Your task to perform on an android device: delete a single message in the gmail app Image 0: 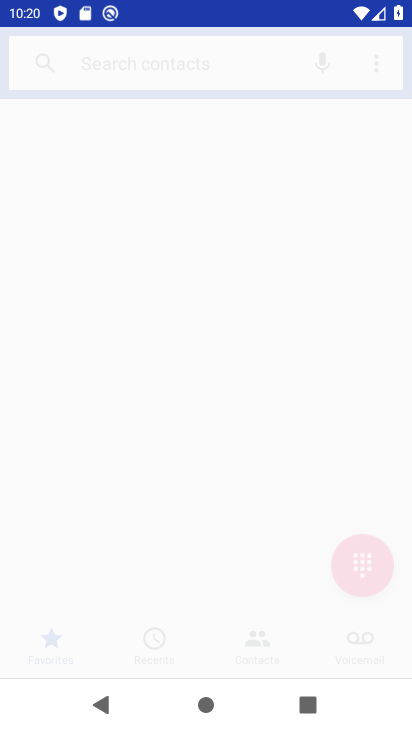
Step 0: press home button
Your task to perform on an android device: delete a single message in the gmail app Image 1: 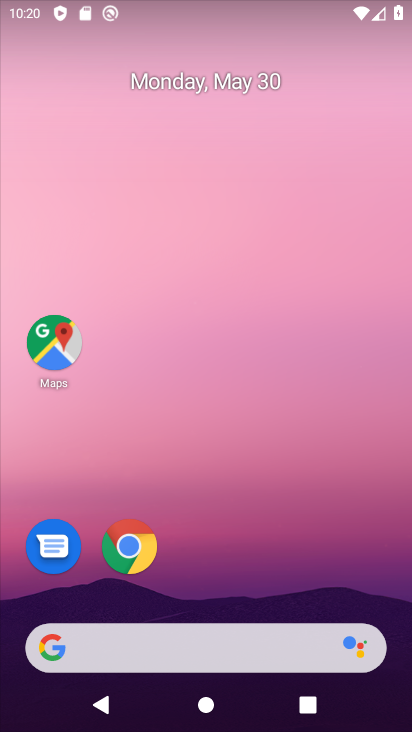
Step 1: drag from (217, 556) to (254, 111)
Your task to perform on an android device: delete a single message in the gmail app Image 2: 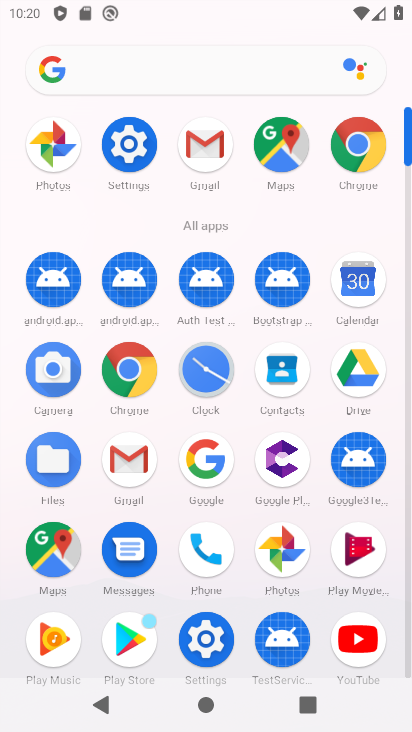
Step 2: click (204, 138)
Your task to perform on an android device: delete a single message in the gmail app Image 3: 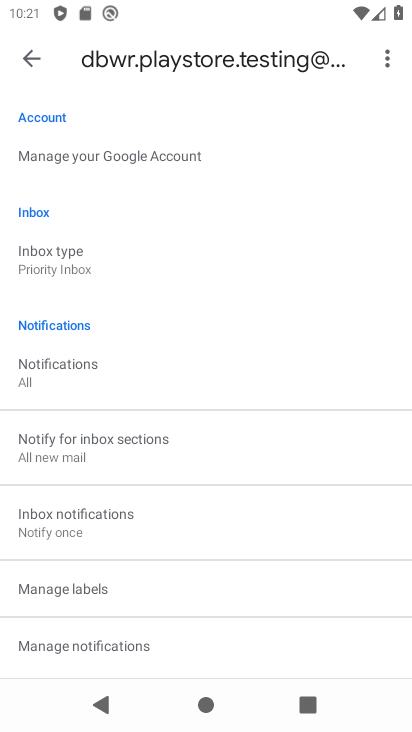
Step 3: click (29, 56)
Your task to perform on an android device: delete a single message in the gmail app Image 4: 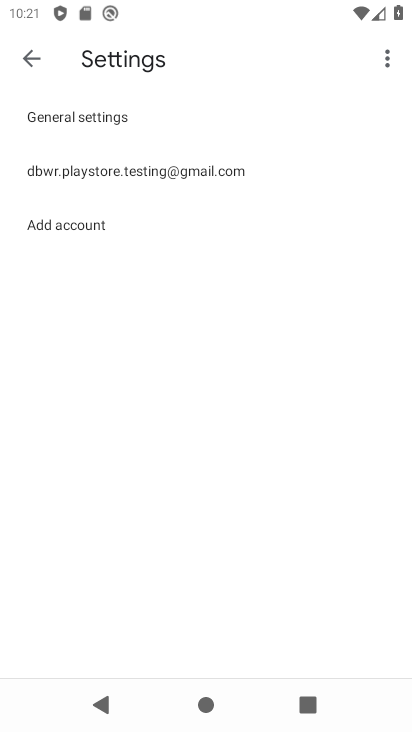
Step 4: click (37, 61)
Your task to perform on an android device: delete a single message in the gmail app Image 5: 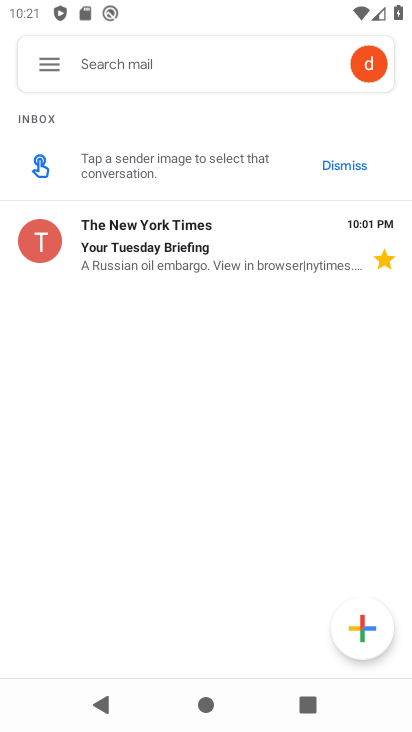
Step 5: click (253, 234)
Your task to perform on an android device: delete a single message in the gmail app Image 6: 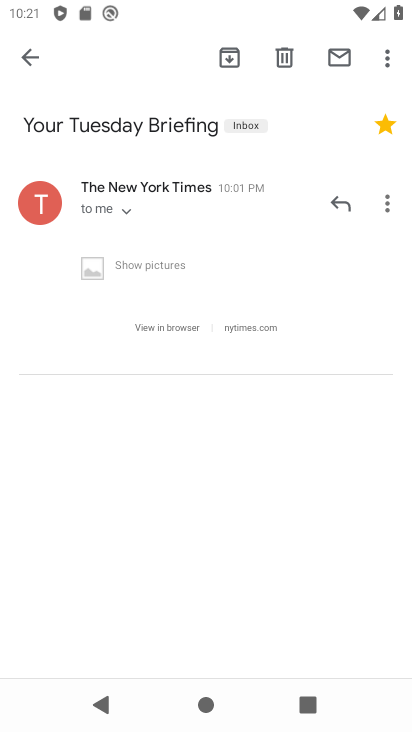
Step 6: click (33, 57)
Your task to perform on an android device: delete a single message in the gmail app Image 7: 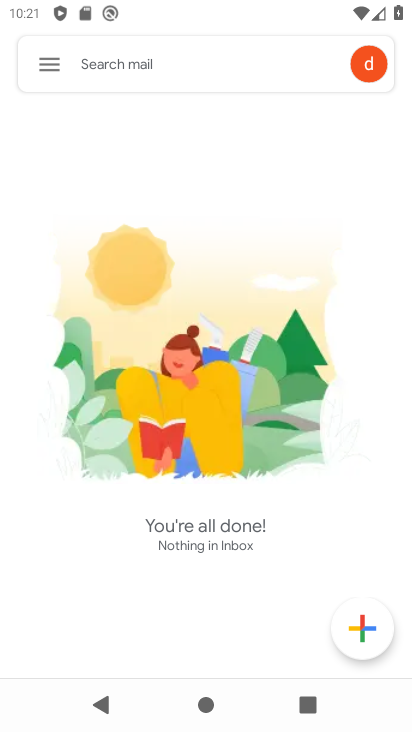
Step 7: click (49, 58)
Your task to perform on an android device: delete a single message in the gmail app Image 8: 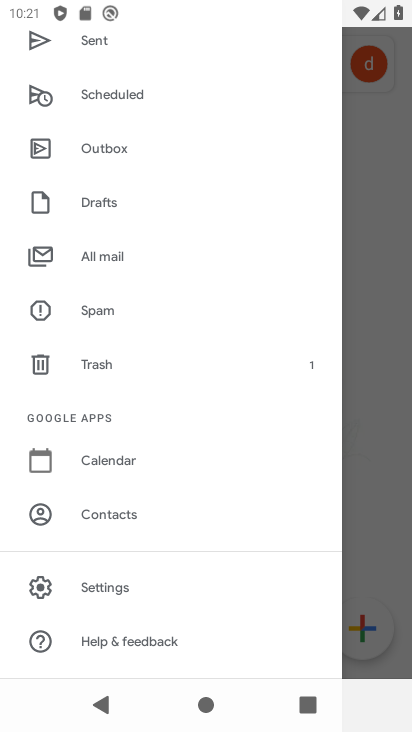
Step 8: drag from (153, 292) to (160, 418)
Your task to perform on an android device: delete a single message in the gmail app Image 9: 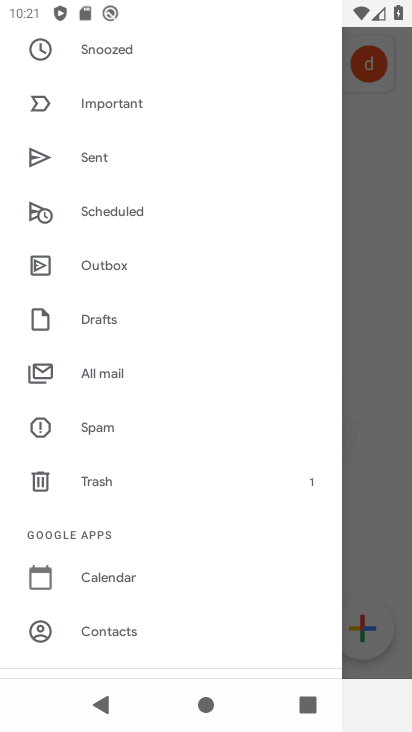
Step 9: click (130, 364)
Your task to perform on an android device: delete a single message in the gmail app Image 10: 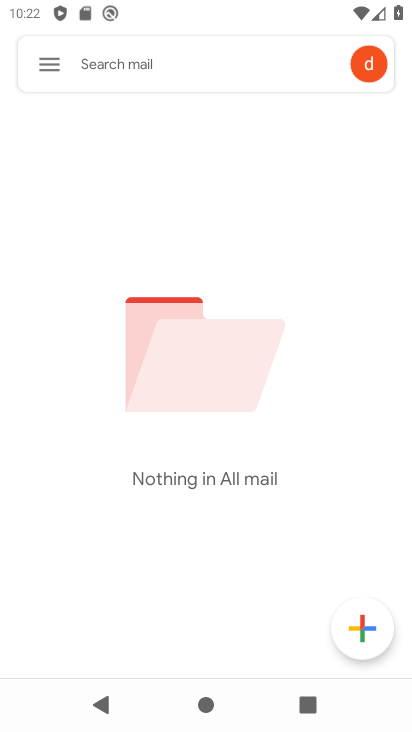
Step 10: task complete